Your task to perform on an android device: check out phone information Image 0: 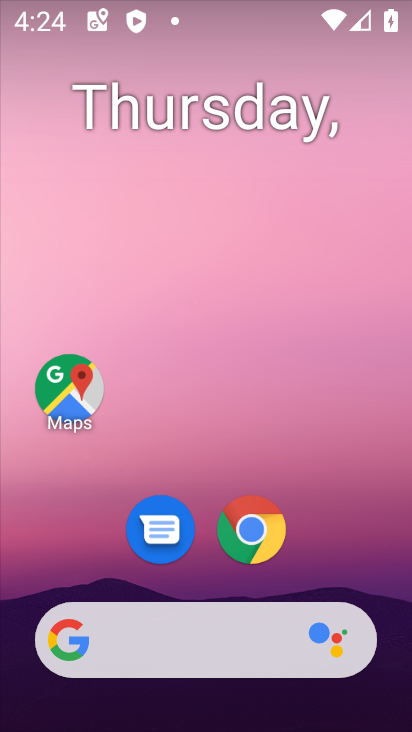
Step 0: drag from (203, 725) to (215, 141)
Your task to perform on an android device: check out phone information Image 1: 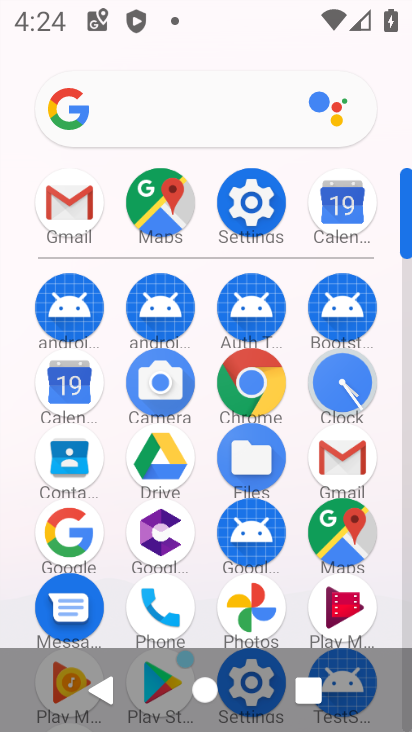
Step 1: click (250, 188)
Your task to perform on an android device: check out phone information Image 2: 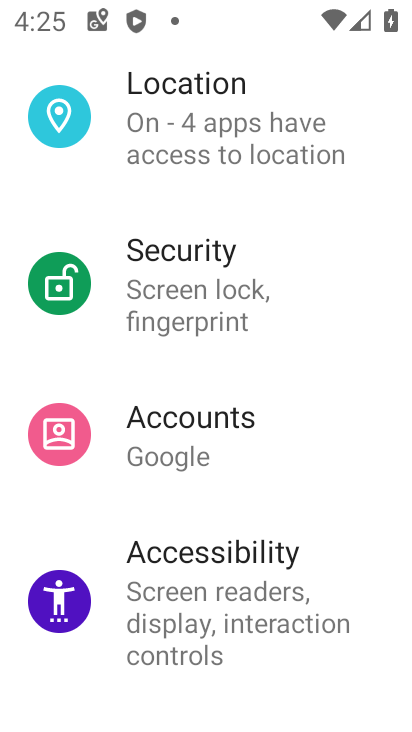
Step 2: drag from (245, 190) to (250, 585)
Your task to perform on an android device: check out phone information Image 3: 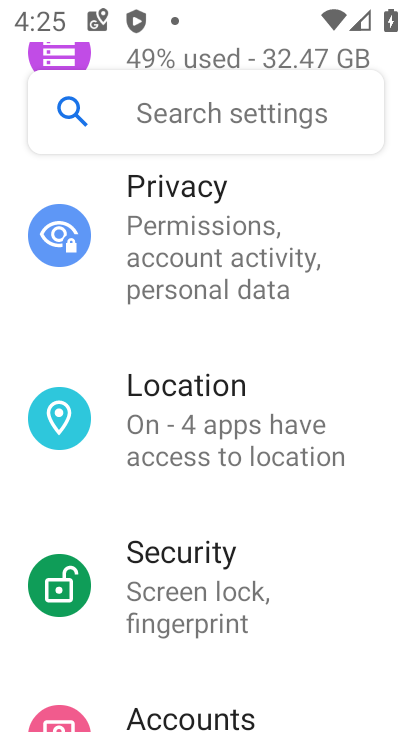
Step 3: drag from (287, 269) to (284, 642)
Your task to perform on an android device: check out phone information Image 4: 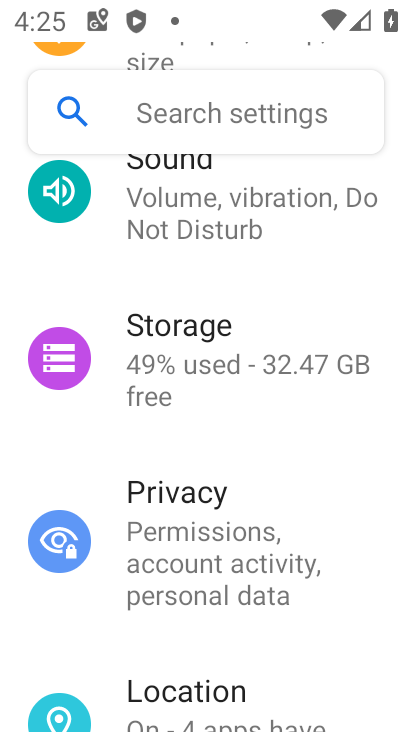
Step 4: drag from (275, 653) to (262, 200)
Your task to perform on an android device: check out phone information Image 5: 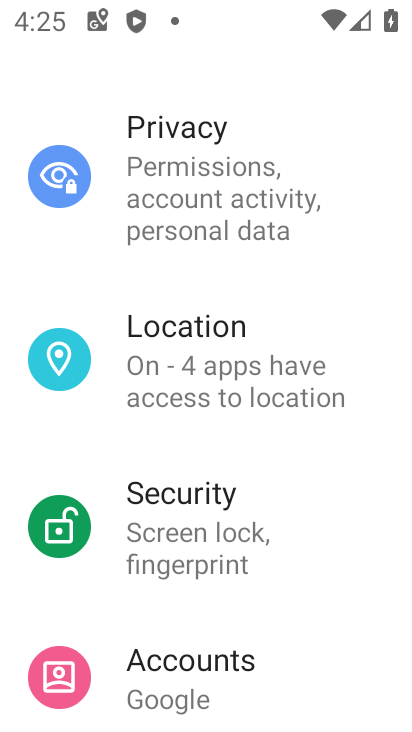
Step 5: drag from (268, 649) to (255, 187)
Your task to perform on an android device: check out phone information Image 6: 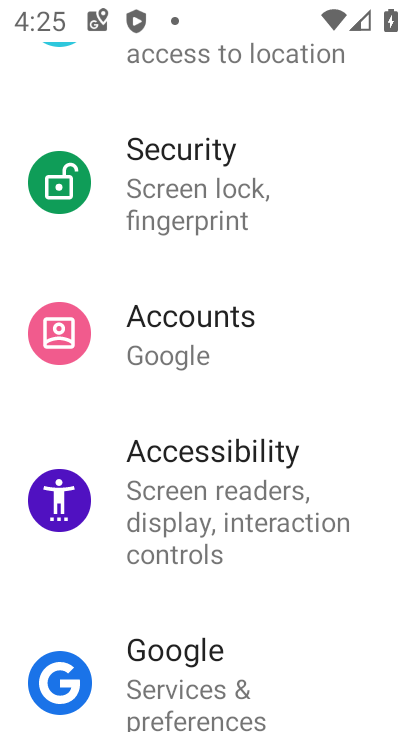
Step 6: drag from (283, 648) to (250, 146)
Your task to perform on an android device: check out phone information Image 7: 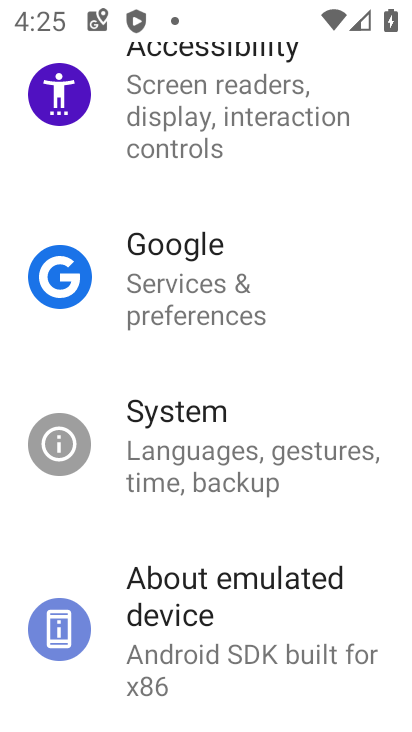
Step 7: drag from (225, 637) to (240, 204)
Your task to perform on an android device: check out phone information Image 8: 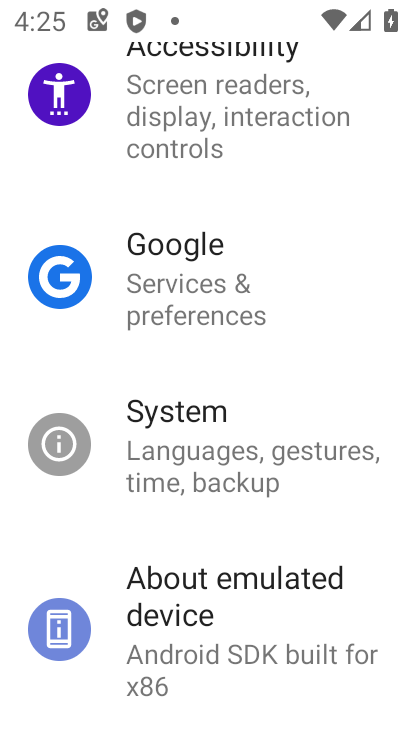
Step 8: click (195, 594)
Your task to perform on an android device: check out phone information Image 9: 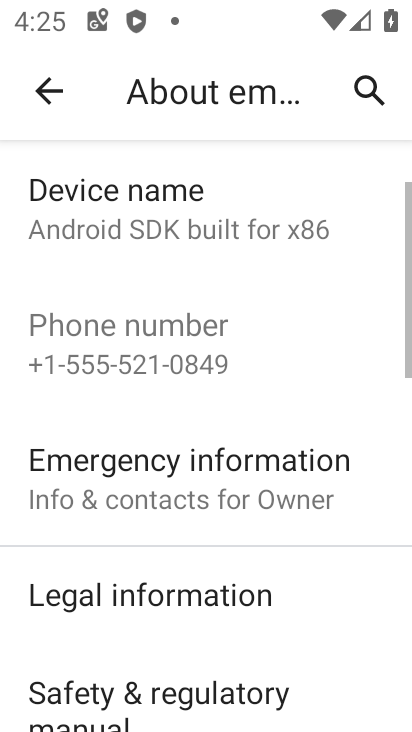
Step 9: task complete